Your task to perform on an android device: Show me recent news Image 0: 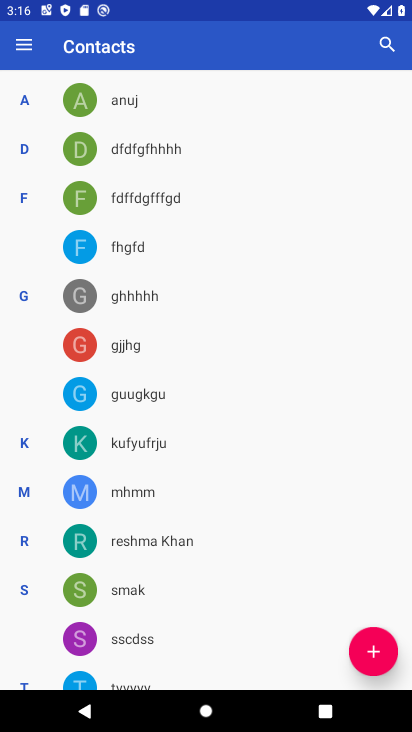
Step 0: press home button
Your task to perform on an android device: Show me recent news Image 1: 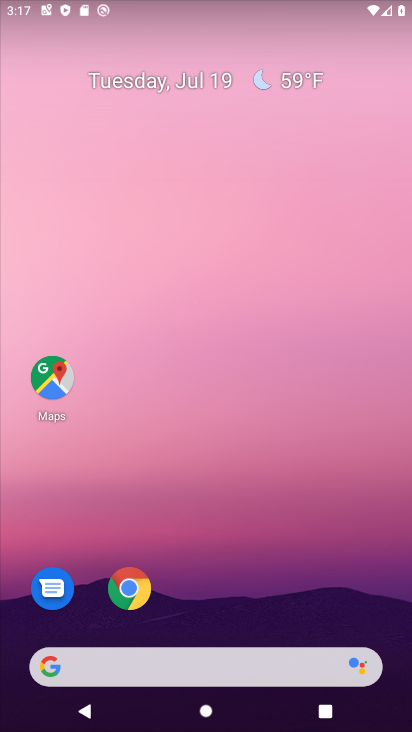
Step 1: drag from (204, 603) to (203, 87)
Your task to perform on an android device: Show me recent news Image 2: 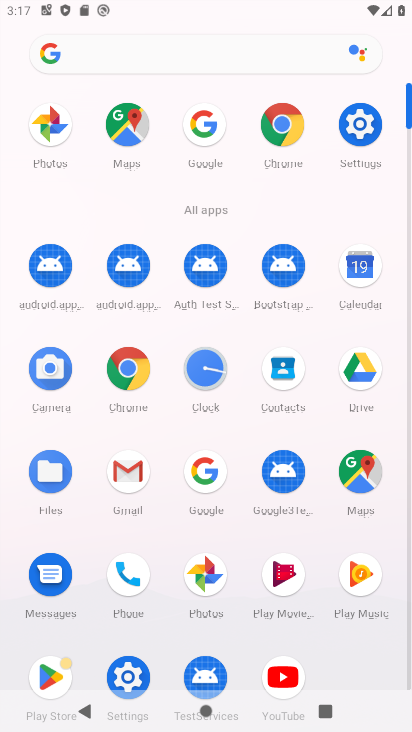
Step 2: click (213, 486)
Your task to perform on an android device: Show me recent news Image 3: 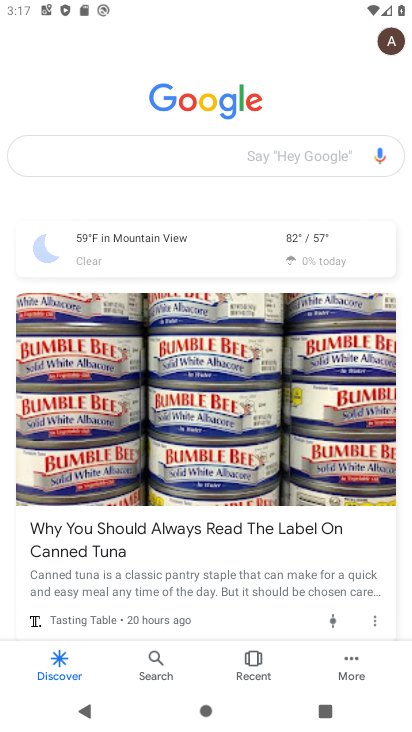
Step 3: click (77, 150)
Your task to perform on an android device: Show me recent news Image 4: 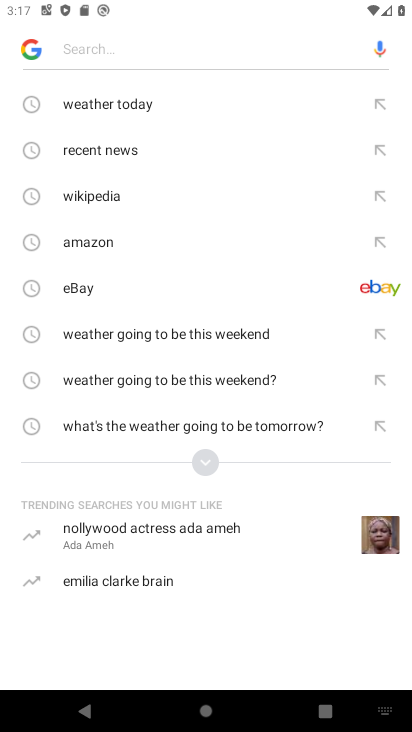
Step 4: click (122, 49)
Your task to perform on an android device: Show me recent news Image 5: 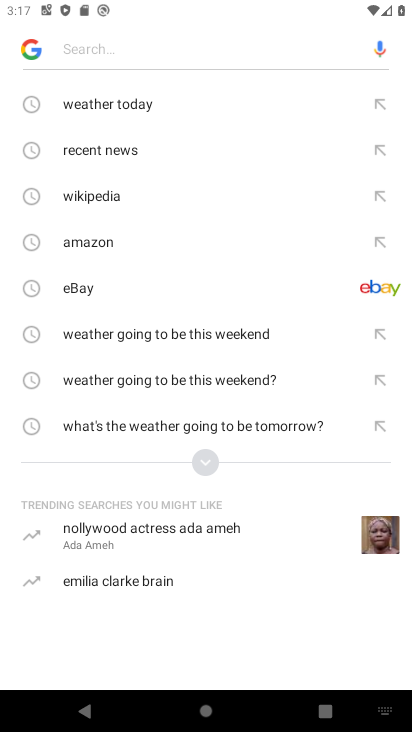
Step 5: click (114, 154)
Your task to perform on an android device: Show me recent news Image 6: 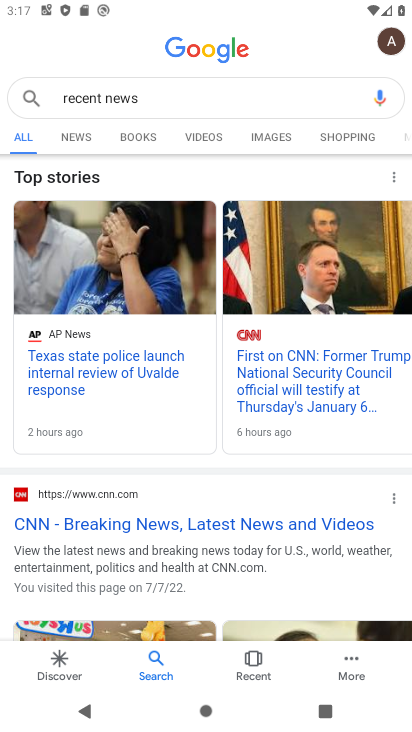
Step 6: click (84, 136)
Your task to perform on an android device: Show me recent news Image 7: 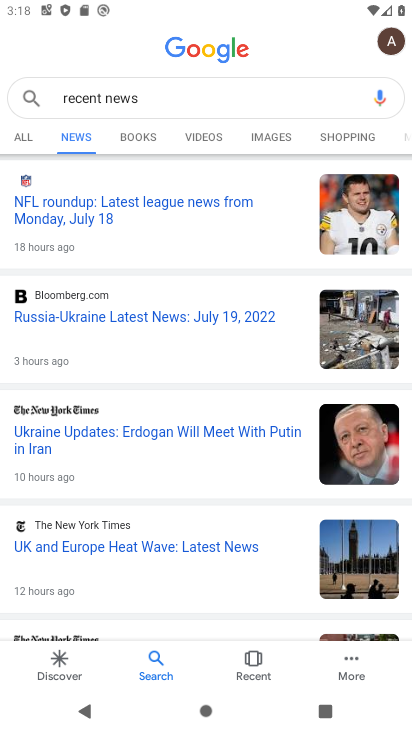
Step 7: task complete